Your task to perform on an android device: move a message to another label in the gmail app Image 0: 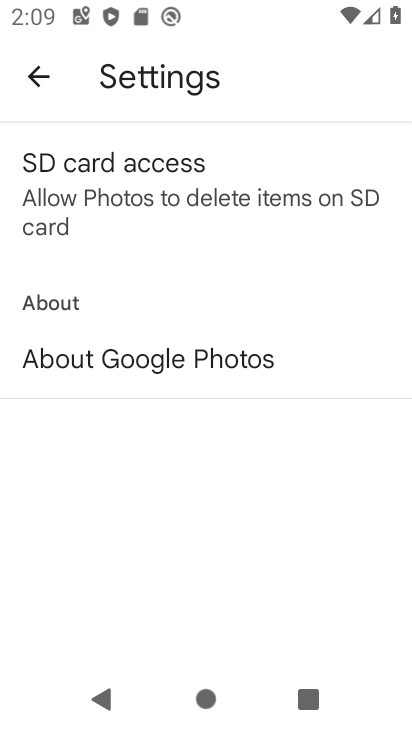
Step 0: press home button
Your task to perform on an android device: move a message to another label in the gmail app Image 1: 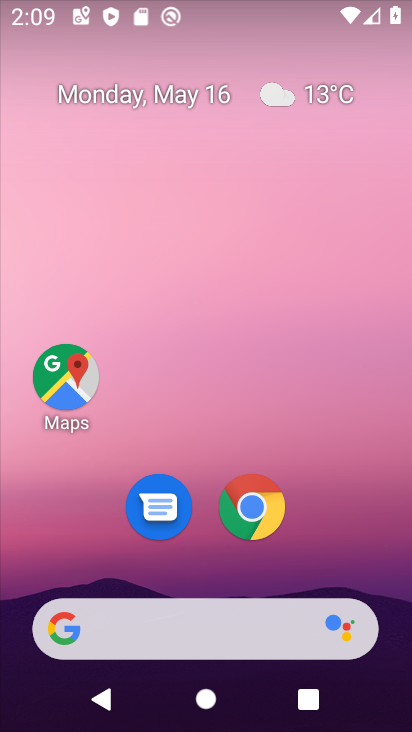
Step 1: drag from (366, 563) to (348, 131)
Your task to perform on an android device: move a message to another label in the gmail app Image 2: 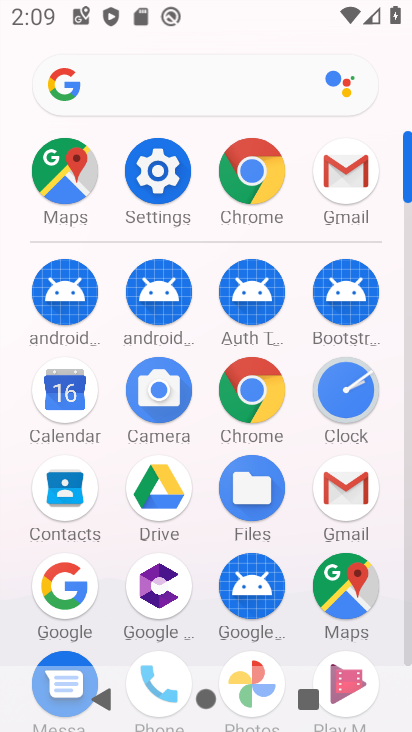
Step 2: click (331, 492)
Your task to perform on an android device: move a message to another label in the gmail app Image 3: 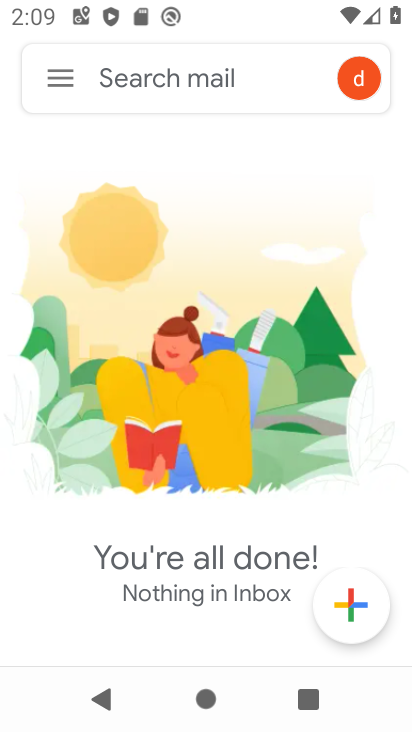
Step 3: click (64, 81)
Your task to perform on an android device: move a message to another label in the gmail app Image 4: 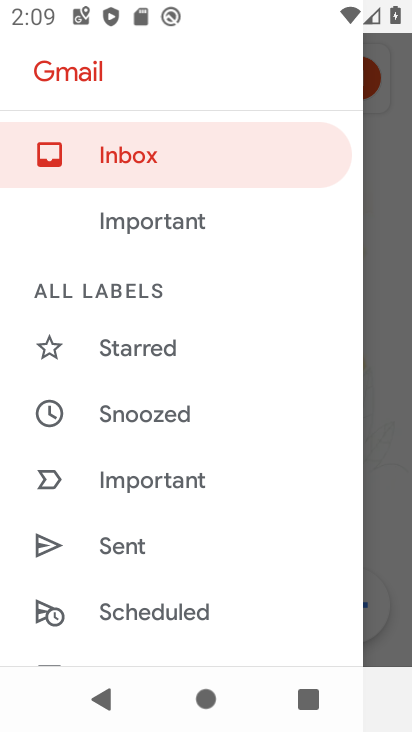
Step 4: drag from (303, 575) to (306, 383)
Your task to perform on an android device: move a message to another label in the gmail app Image 5: 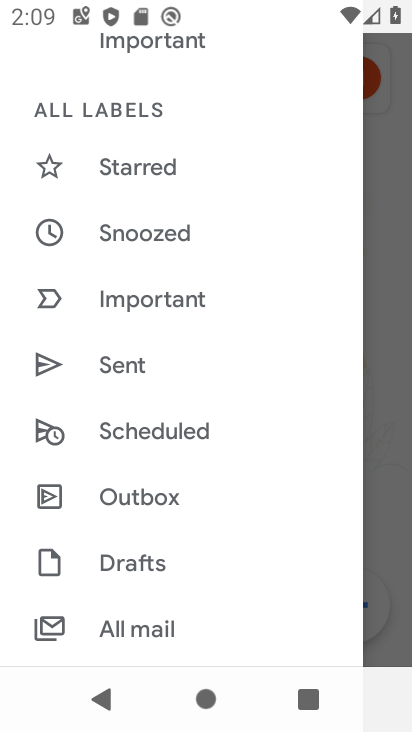
Step 5: drag from (294, 599) to (295, 326)
Your task to perform on an android device: move a message to another label in the gmail app Image 6: 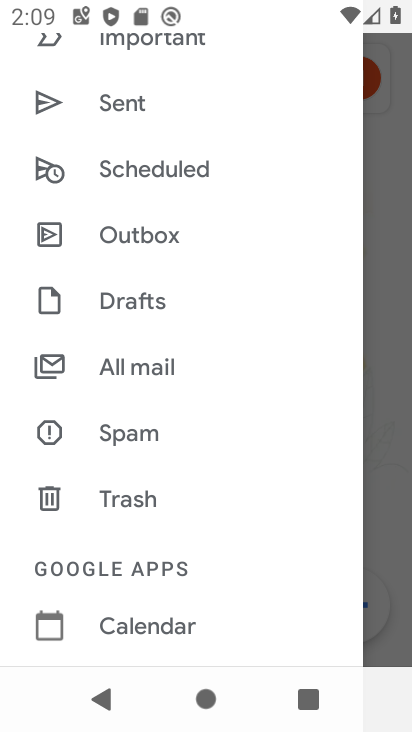
Step 6: drag from (292, 606) to (293, 369)
Your task to perform on an android device: move a message to another label in the gmail app Image 7: 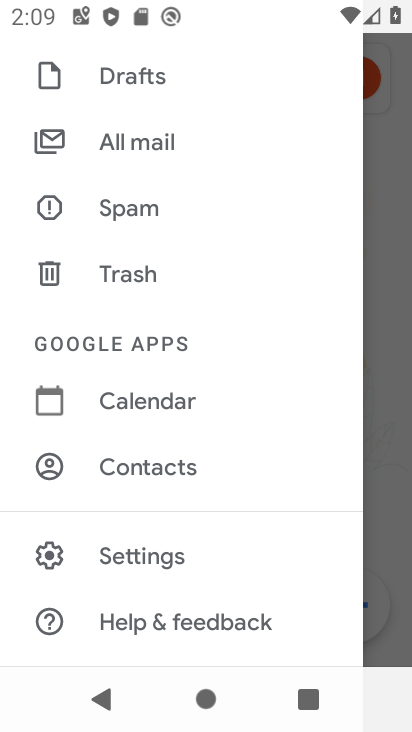
Step 7: drag from (305, 609) to (308, 424)
Your task to perform on an android device: move a message to another label in the gmail app Image 8: 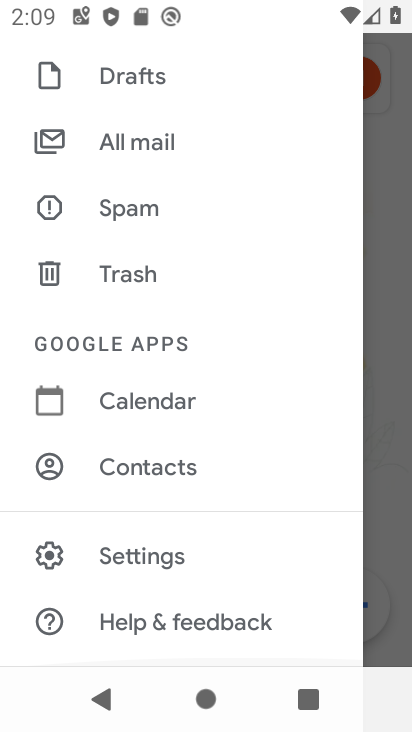
Step 8: drag from (297, 315) to (300, 513)
Your task to perform on an android device: move a message to another label in the gmail app Image 9: 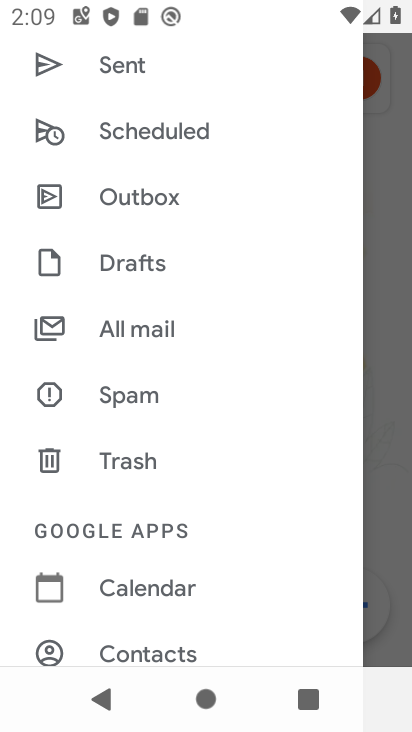
Step 9: drag from (301, 279) to (298, 465)
Your task to perform on an android device: move a message to another label in the gmail app Image 10: 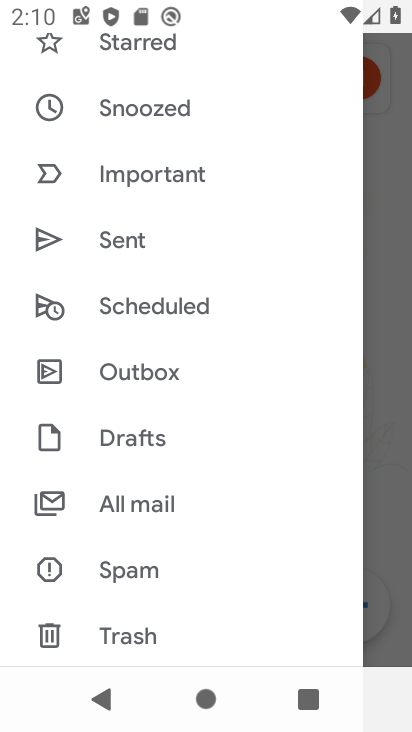
Step 10: drag from (301, 244) to (294, 452)
Your task to perform on an android device: move a message to another label in the gmail app Image 11: 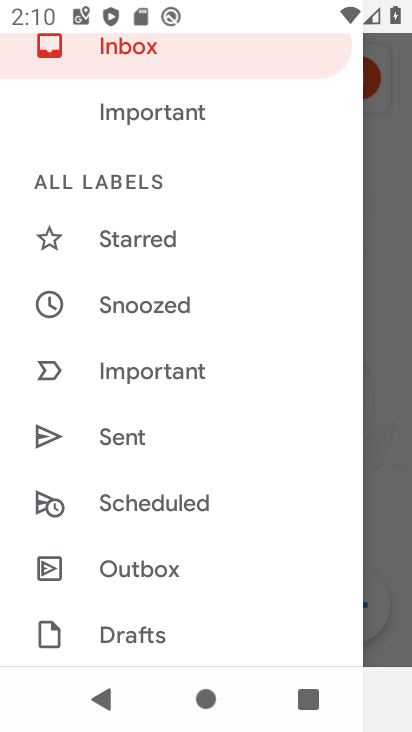
Step 11: drag from (291, 235) to (280, 431)
Your task to perform on an android device: move a message to another label in the gmail app Image 12: 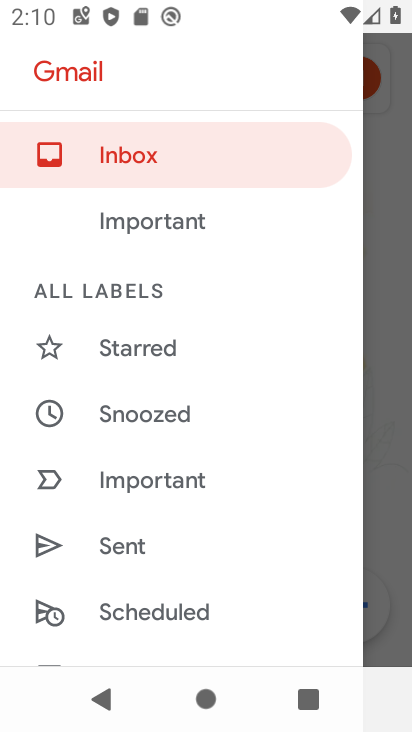
Step 12: click (187, 157)
Your task to perform on an android device: move a message to another label in the gmail app Image 13: 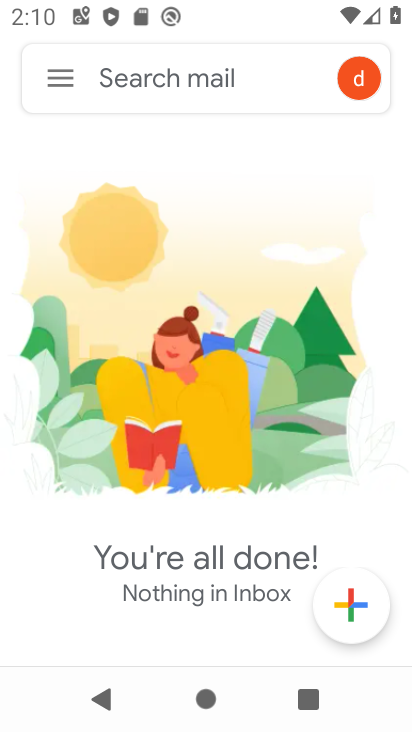
Step 13: task complete